Your task to perform on an android device: make emails show in primary in the gmail app Image 0: 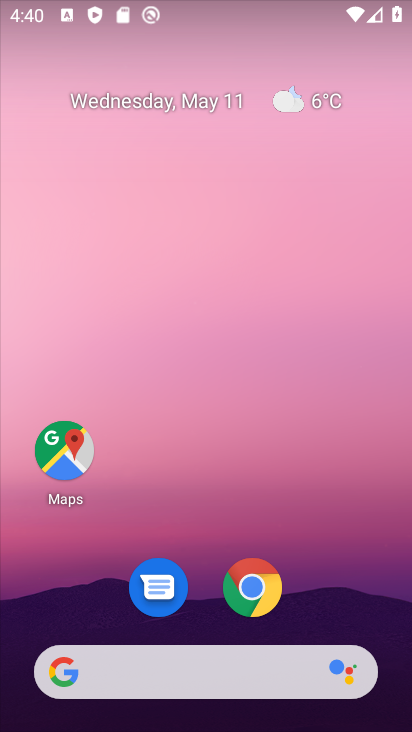
Step 0: drag from (366, 538) to (354, 274)
Your task to perform on an android device: make emails show in primary in the gmail app Image 1: 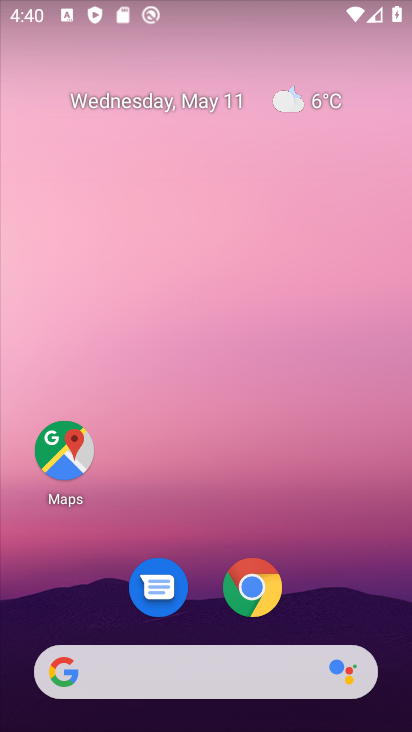
Step 1: drag from (266, 592) to (301, 226)
Your task to perform on an android device: make emails show in primary in the gmail app Image 2: 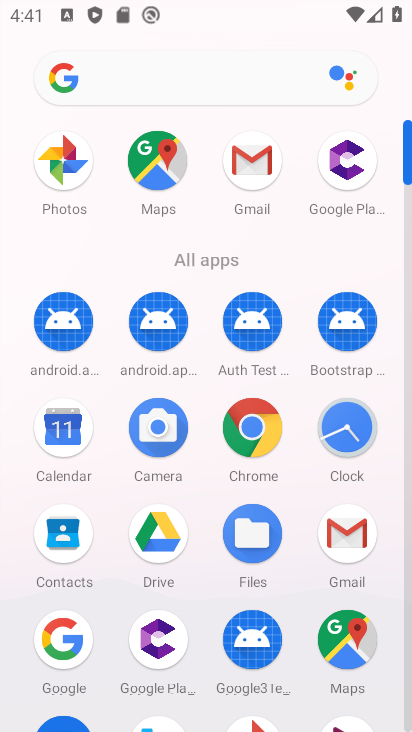
Step 2: click (335, 535)
Your task to perform on an android device: make emails show in primary in the gmail app Image 3: 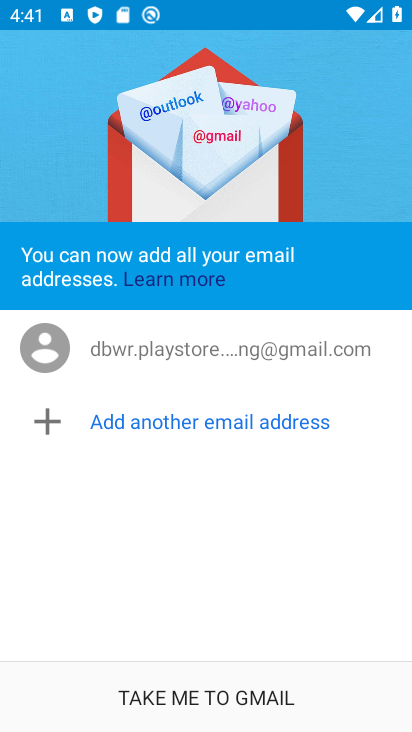
Step 3: drag from (203, 522) to (234, 289)
Your task to perform on an android device: make emails show in primary in the gmail app Image 4: 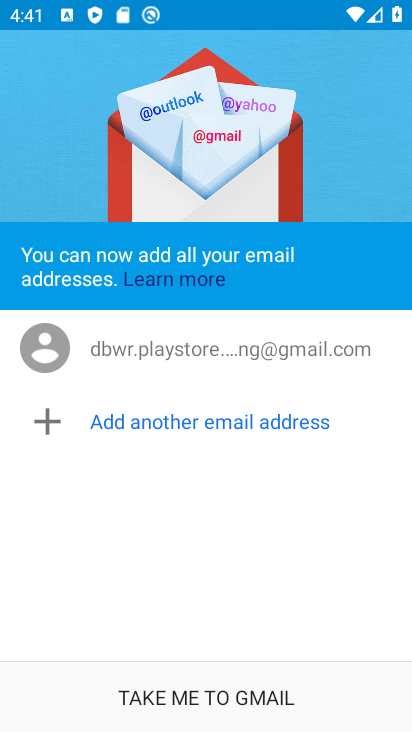
Step 4: click (288, 566)
Your task to perform on an android device: make emails show in primary in the gmail app Image 5: 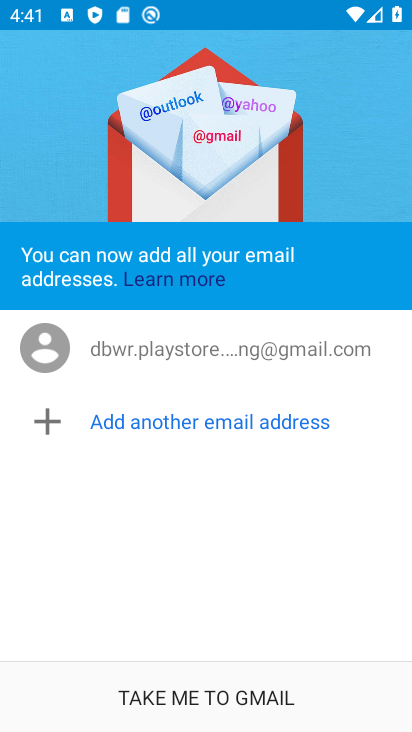
Step 5: task complete